Your task to perform on an android device: Go to Maps Image 0: 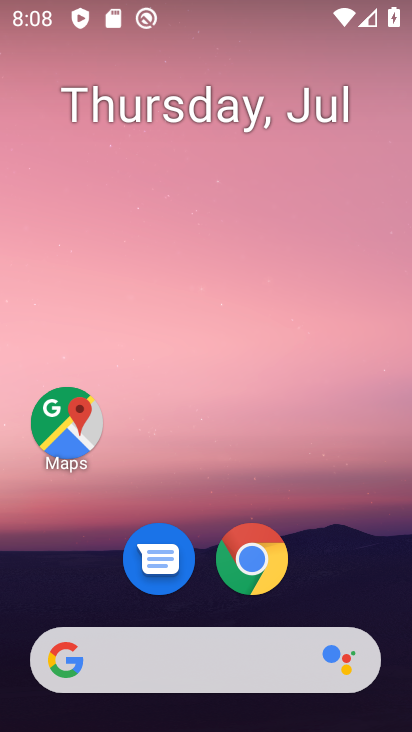
Step 0: click (60, 437)
Your task to perform on an android device: Go to Maps Image 1: 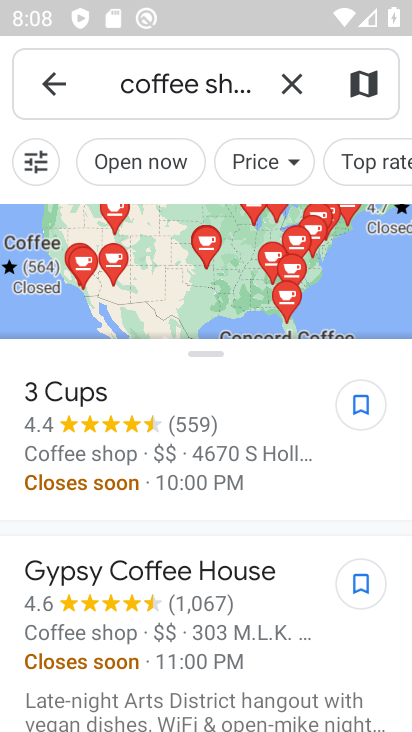
Step 1: task complete